Your task to perform on an android device: Go to accessibility settings Image 0: 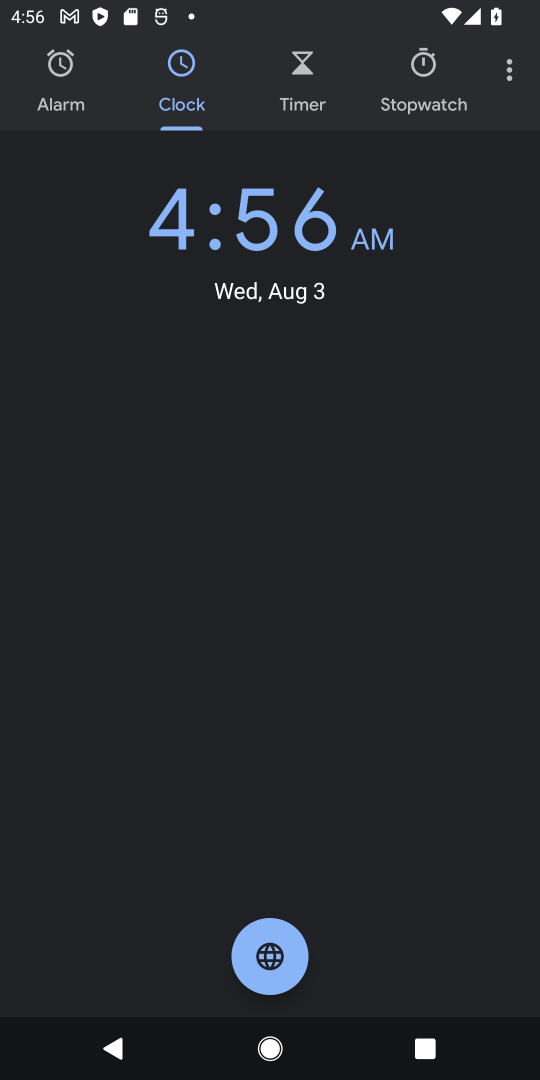
Step 0: press back button
Your task to perform on an android device: Go to accessibility settings Image 1: 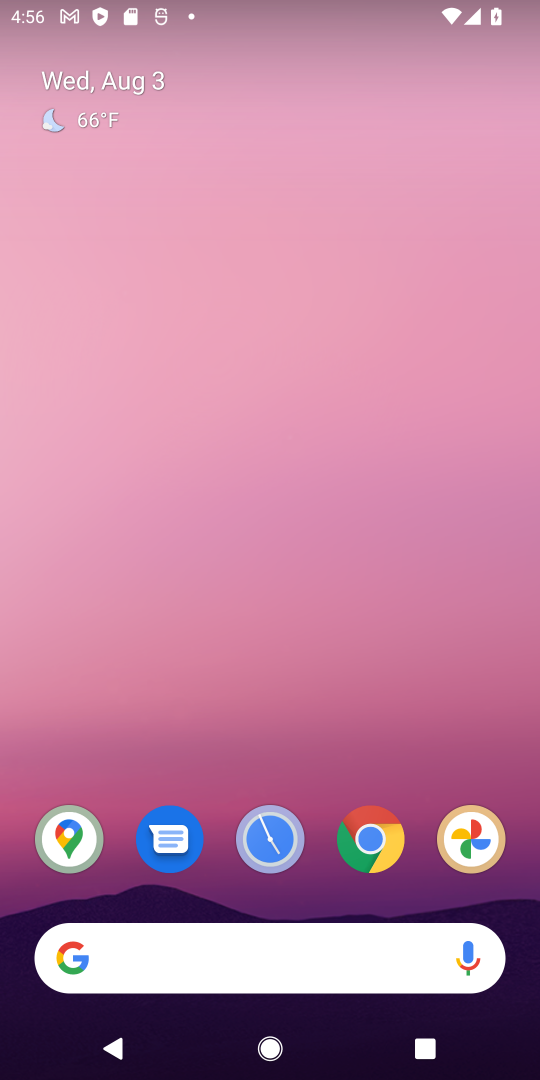
Step 1: drag from (236, 588) to (315, 6)
Your task to perform on an android device: Go to accessibility settings Image 2: 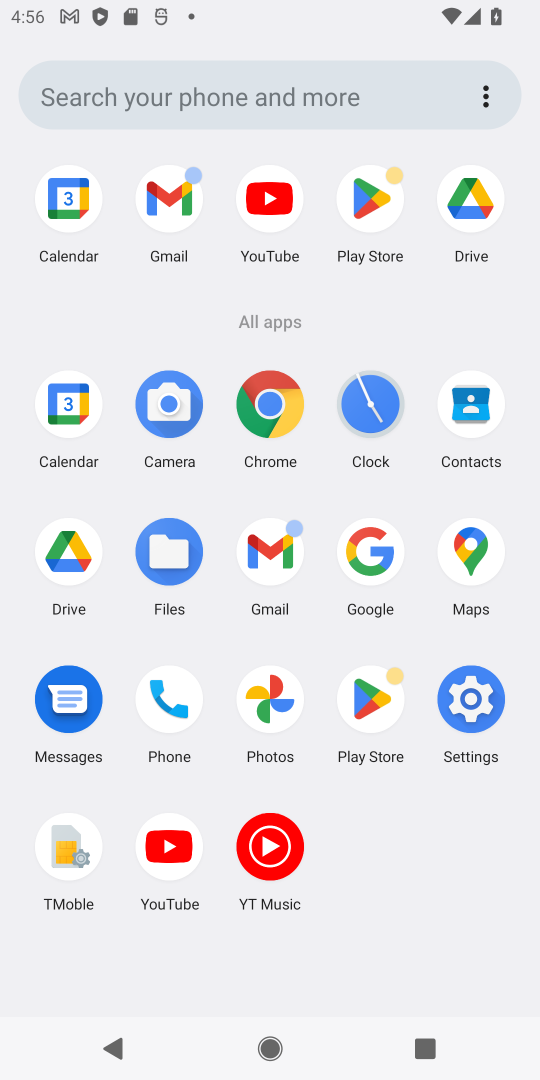
Step 2: click (471, 703)
Your task to perform on an android device: Go to accessibility settings Image 3: 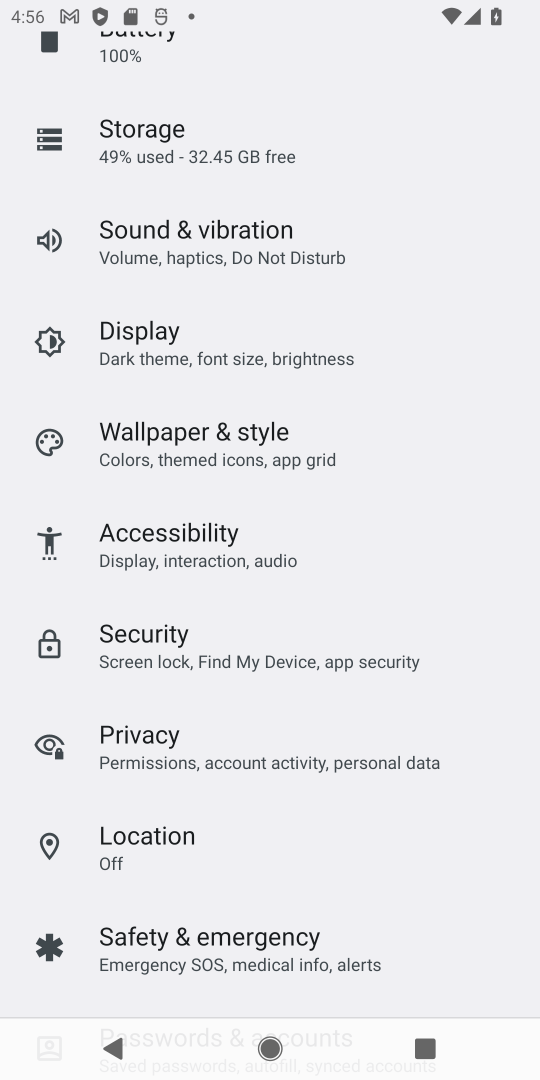
Step 3: click (163, 552)
Your task to perform on an android device: Go to accessibility settings Image 4: 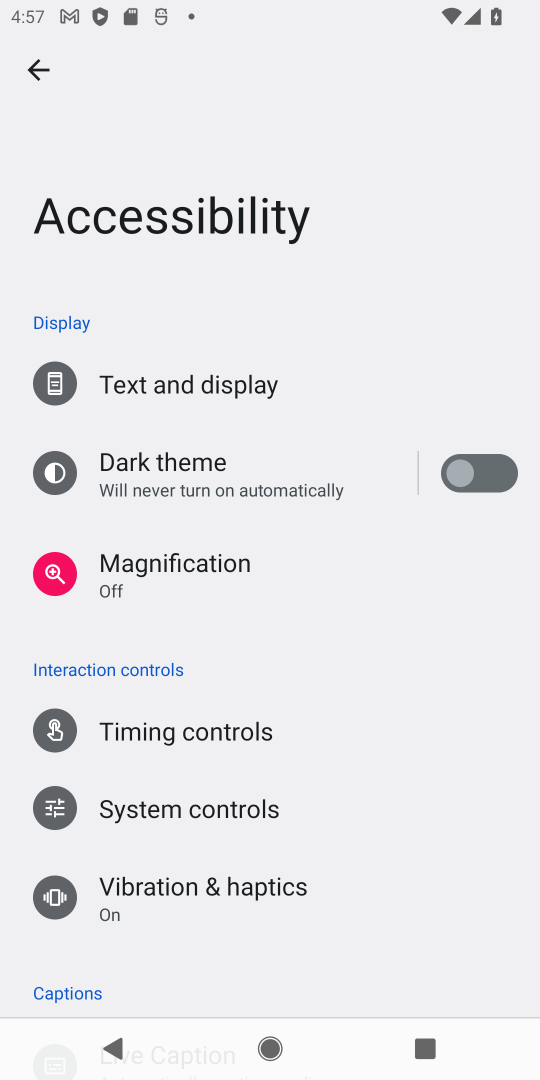
Step 4: task complete